Your task to perform on an android device: turn off data saver in the chrome app Image 0: 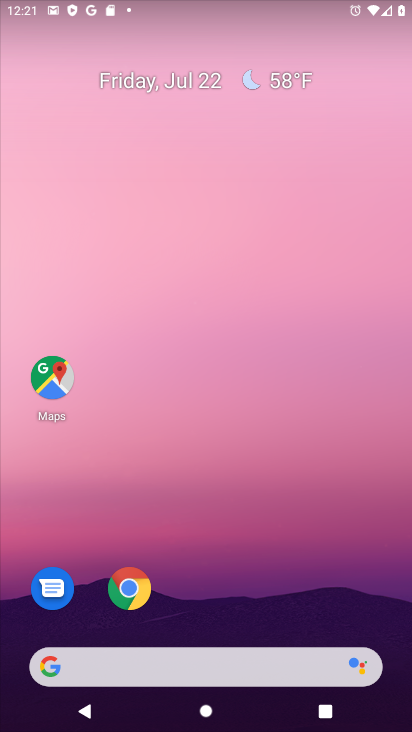
Step 0: click (137, 573)
Your task to perform on an android device: turn off data saver in the chrome app Image 1: 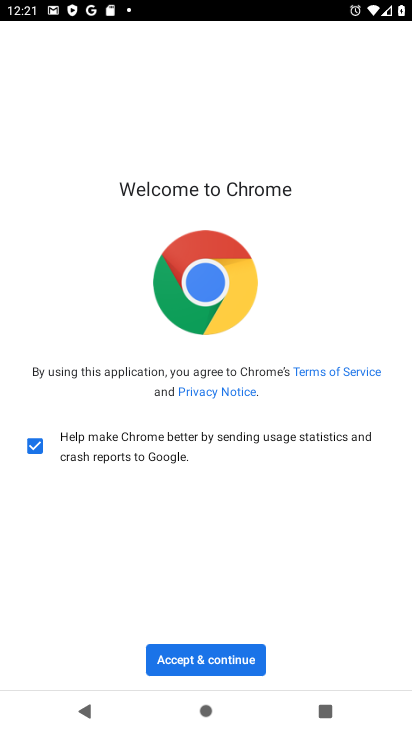
Step 1: click (213, 667)
Your task to perform on an android device: turn off data saver in the chrome app Image 2: 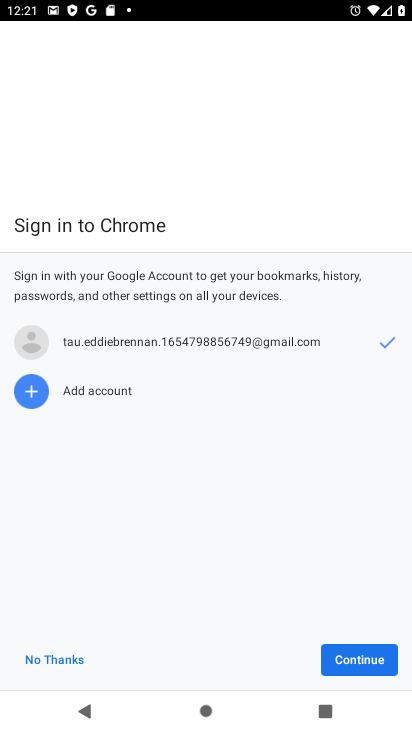
Step 2: click (390, 665)
Your task to perform on an android device: turn off data saver in the chrome app Image 3: 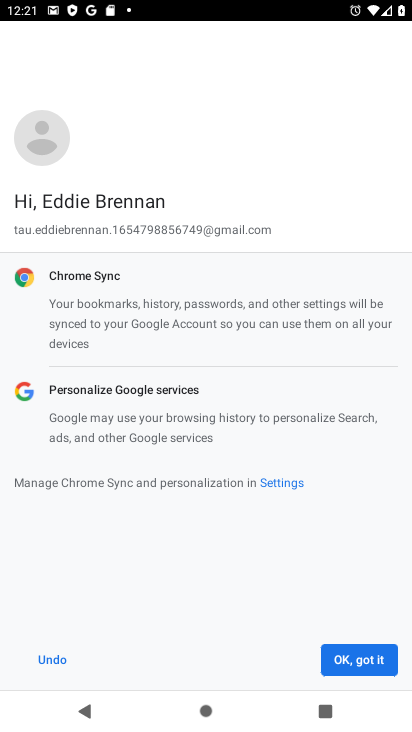
Step 3: click (390, 665)
Your task to perform on an android device: turn off data saver in the chrome app Image 4: 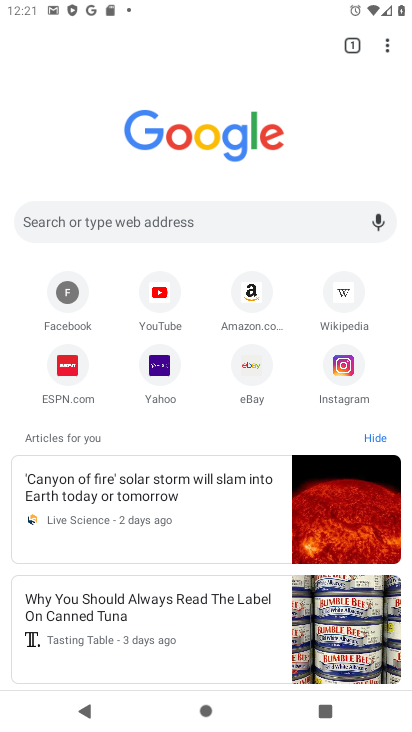
Step 4: click (393, 52)
Your task to perform on an android device: turn off data saver in the chrome app Image 5: 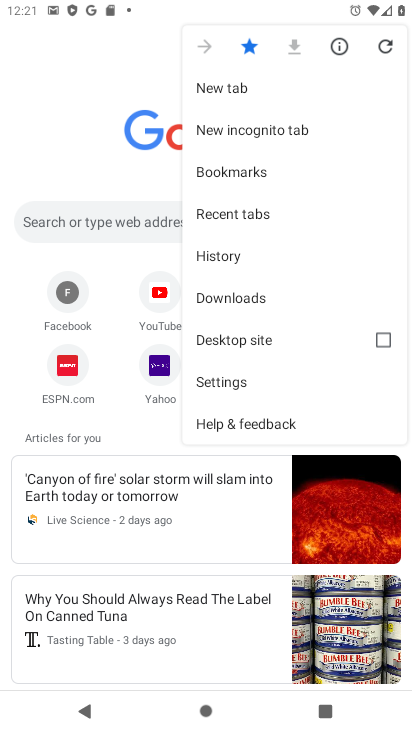
Step 5: click (245, 384)
Your task to perform on an android device: turn off data saver in the chrome app Image 6: 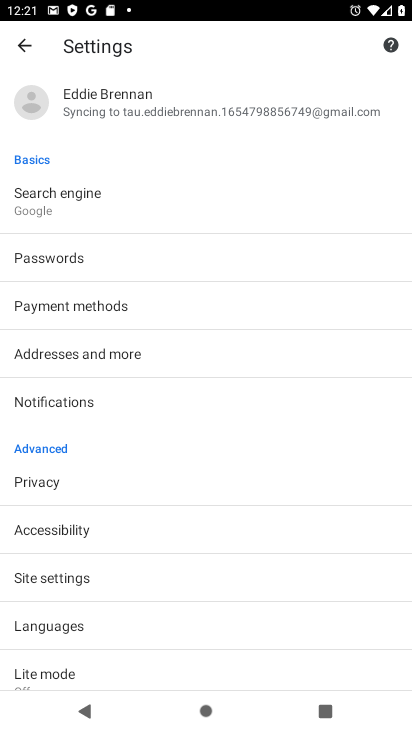
Step 6: click (79, 677)
Your task to perform on an android device: turn off data saver in the chrome app Image 7: 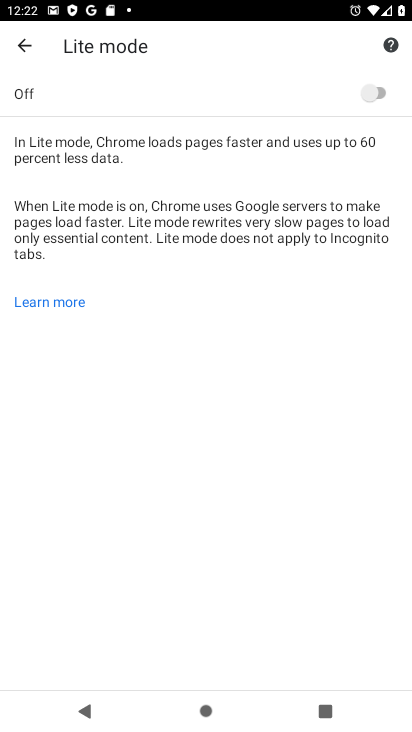
Step 7: task complete